Your task to perform on an android device: Open notification settings Image 0: 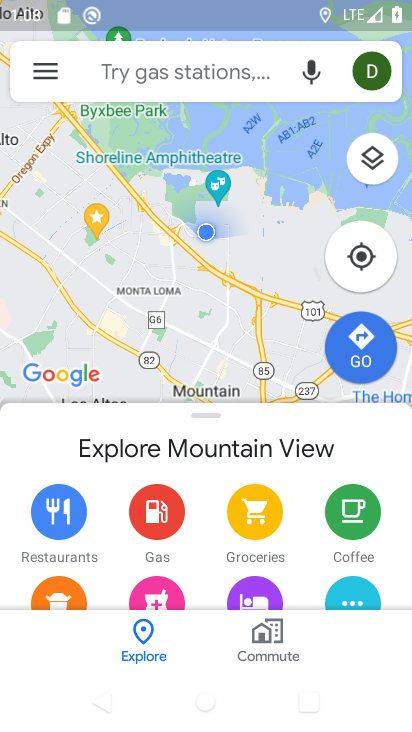
Step 0: press home button
Your task to perform on an android device: Open notification settings Image 1: 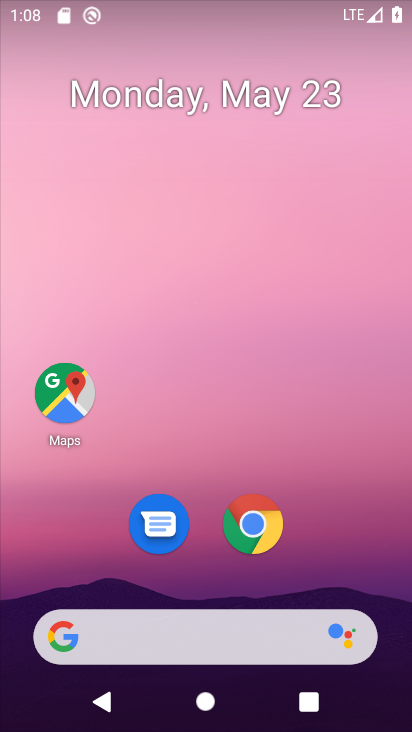
Step 1: drag from (210, 432) to (227, 7)
Your task to perform on an android device: Open notification settings Image 2: 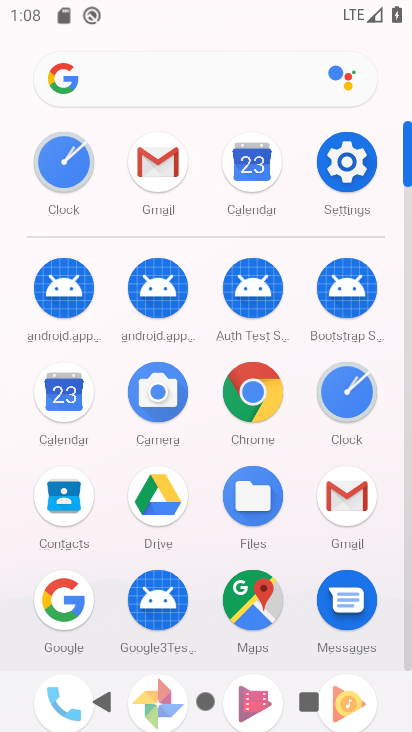
Step 2: click (337, 164)
Your task to perform on an android device: Open notification settings Image 3: 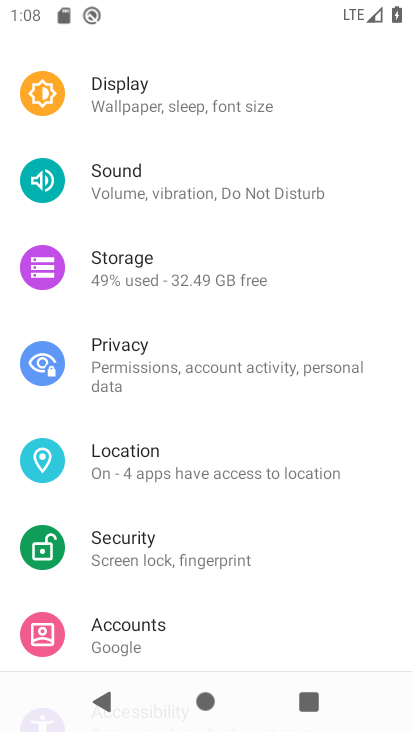
Step 3: drag from (220, 162) to (219, 566)
Your task to perform on an android device: Open notification settings Image 4: 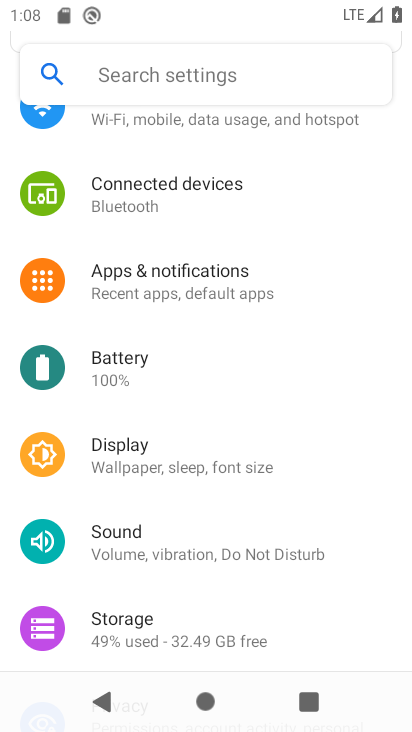
Step 4: click (238, 281)
Your task to perform on an android device: Open notification settings Image 5: 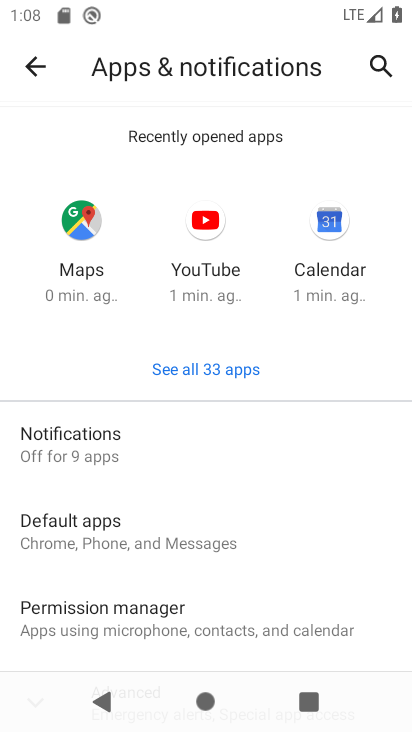
Step 5: task complete